Your task to perform on an android device: Open ESPN.com Image 0: 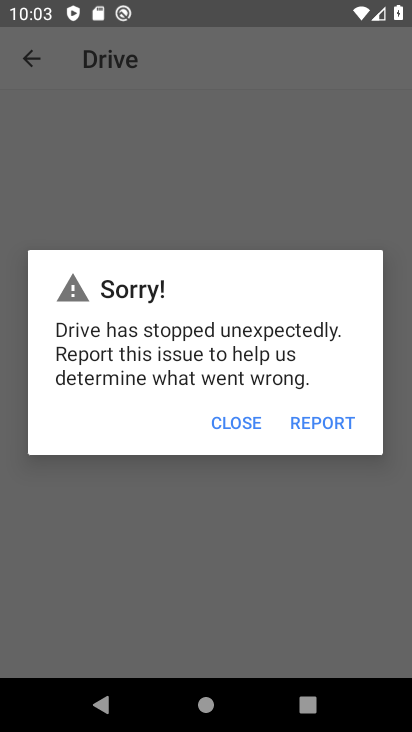
Step 0: press home button
Your task to perform on an android device: Open ESPN.com Image 1: 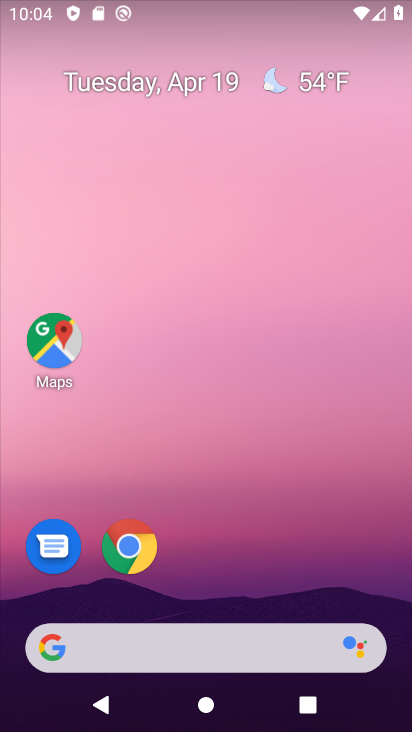
Step 1: click (125, 546)
Your task to perform on an android device: Open ESPN.com Image 2: 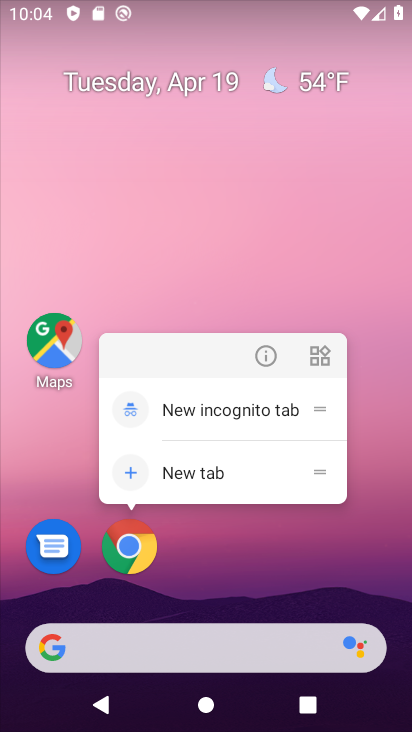
Step 2: click (279, 638)
Your task to perform on an android device: Open ESPN.com Image 3: 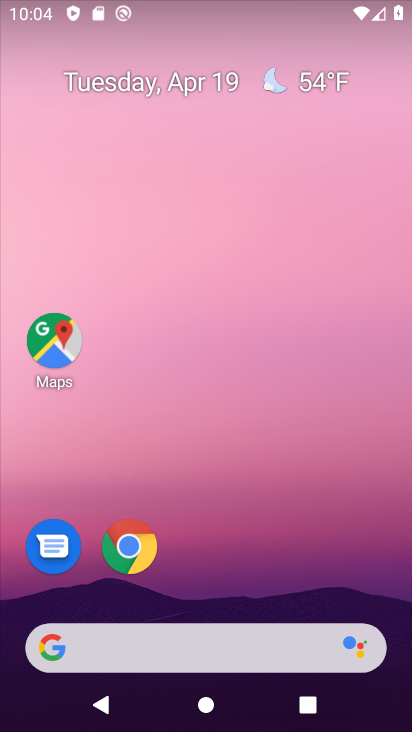
Step 3: click (274, 646)
Your task to perform on an android device: Open ESPN.com Image 4: 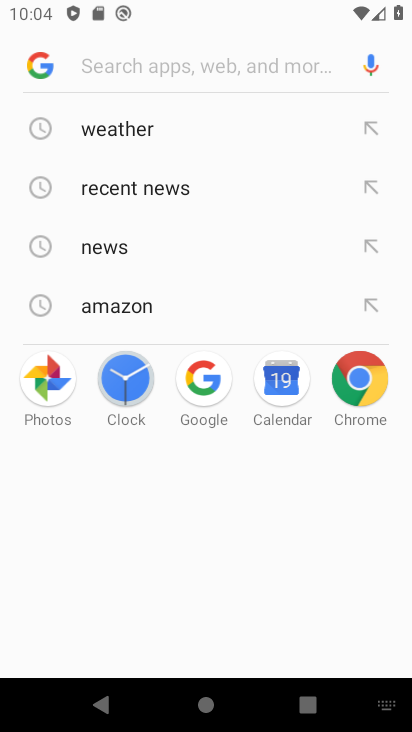
Step 4: type "espn.com"
Your task to perform on an android device: Open ESPN.com Image 5: 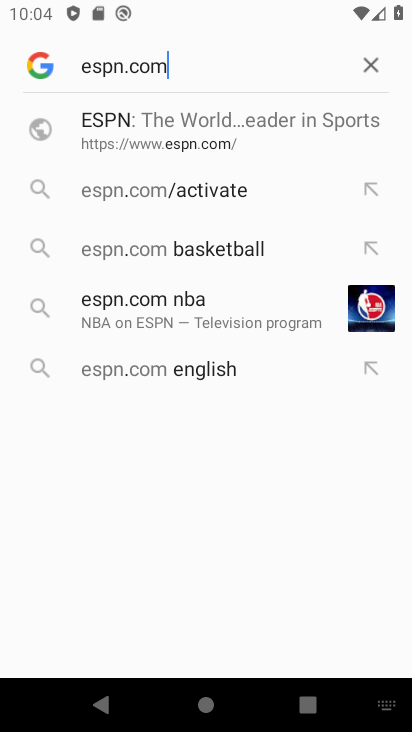
Step 5: click (276, 137)
Your task to perform on an android device: Open ESPN.com Image 6: 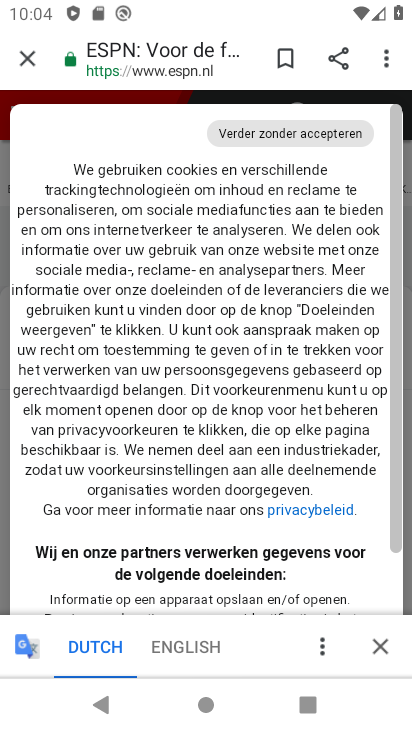
Step 6: task complete